Your task to perform on an android device: all mails in gmail Image 0: 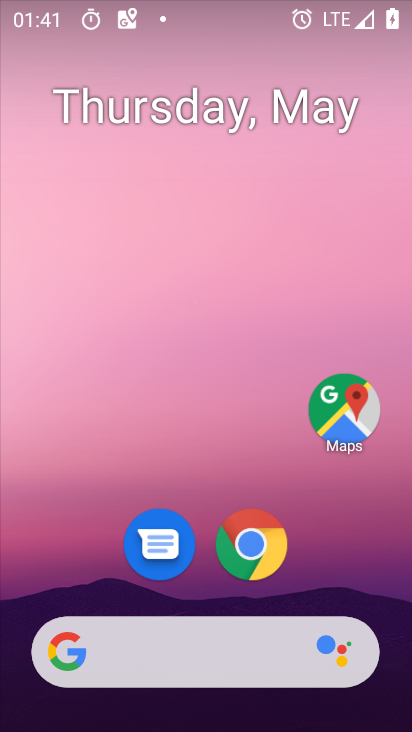
Step 0: drag from (358, 546) to (316, 138)
Your task to perform on an android device: all mails in gmail Image 1: 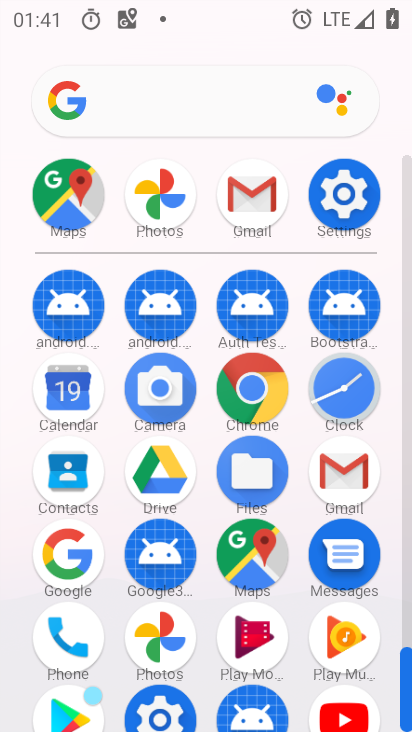
Step 1: click (356, 471)
Your task to perform on an android device: all mails in gmail Image 2: 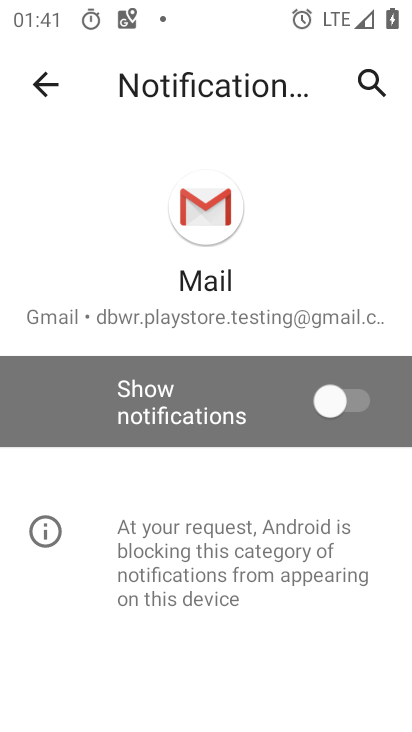
Step 2: click (59, 91)
Your task to perform on an android device: all mails in gmail Image 3: 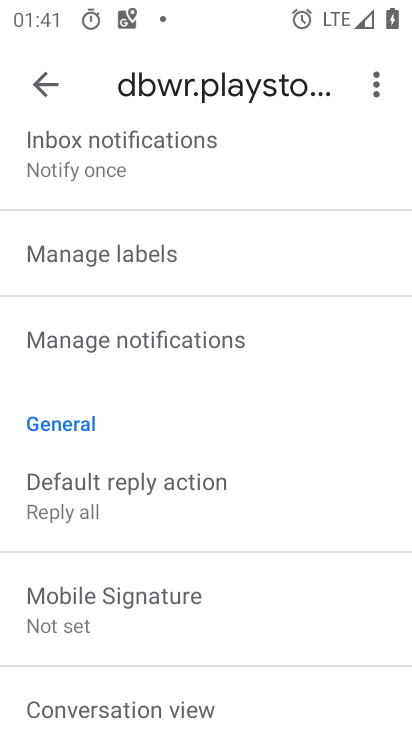
Step 3: click (52, 80)
Your task to perform on an android device: all mails in gmail Image 4: 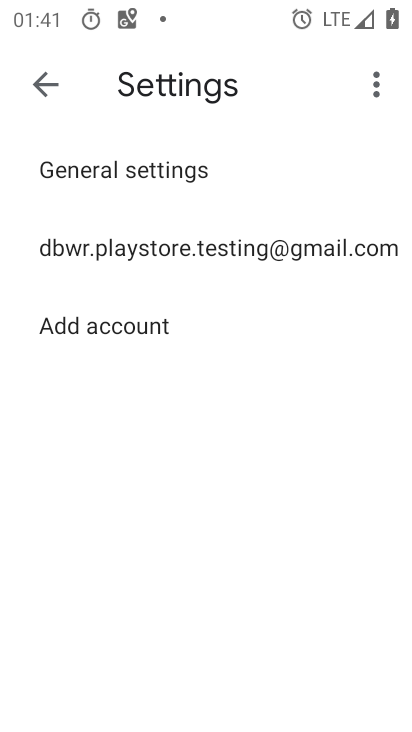
Step 4: click (47, 83)
Your task to perform on an android device: all mails in gmail Image 5: 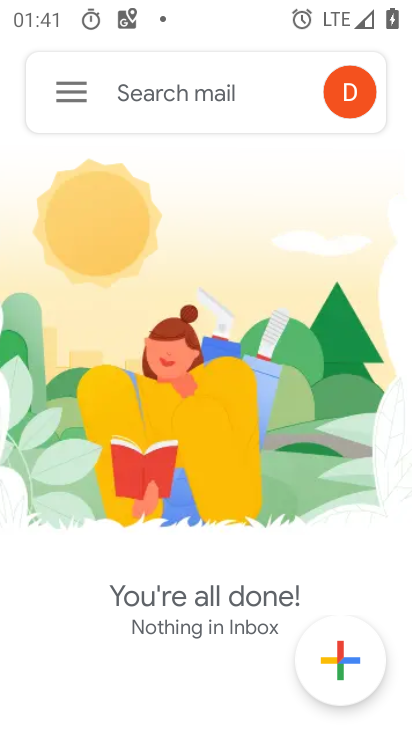
Step 5: click (77, 90)
Your task to perform on an android device: all mails in gmail Image 6: 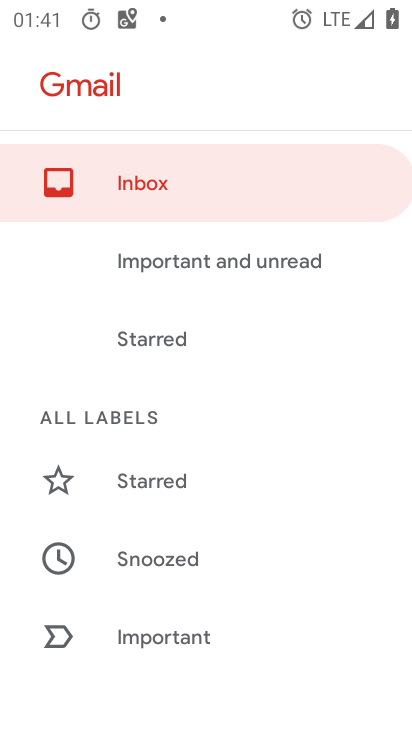
Step 6: drag from (270, 476) to (267, 353)
Your task to perform on an android device: all mails in gmail Image 7: 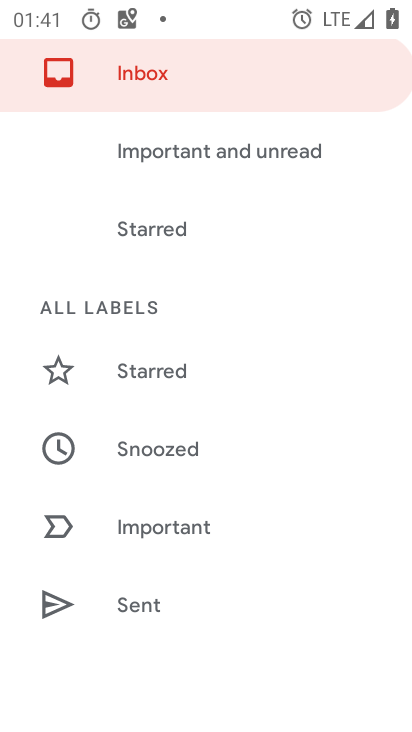
Step 7: drag from (278, 526) to (278, 358)
Your task to perform on an android device: all mails in gmail Image 8: 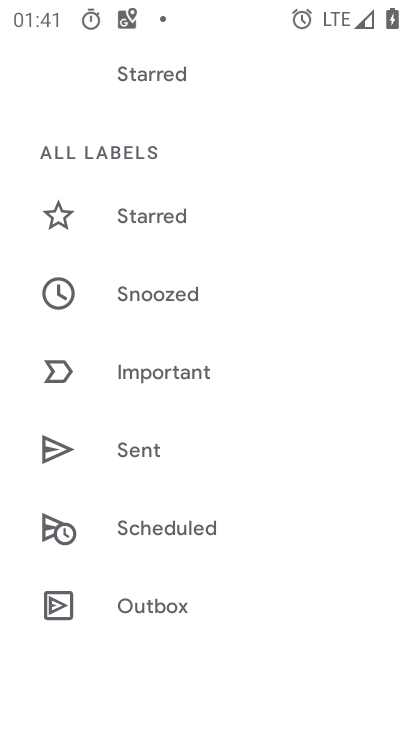
Step 8: drag from (284, 550) to (288, 421)
Your task to perform on an android device: all mails in gmail Image 9: 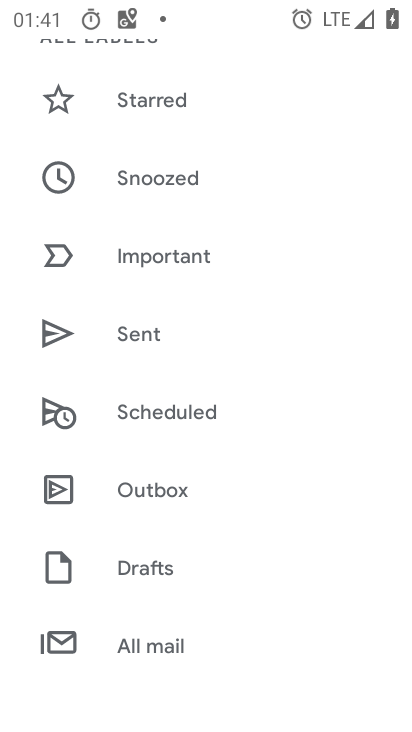
Step 9: drag from (302, 571) to (300, 447)
Your task to perform on an android device: all mails in gmail Image 10: 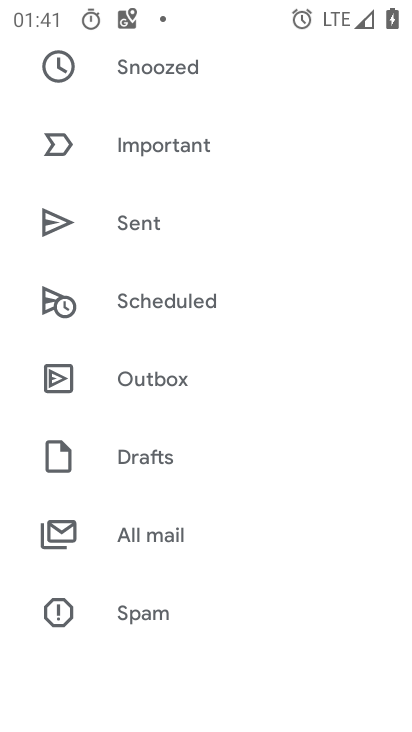
Step 10: drag from (283, 583) to (293, 449)
Your task to perform on an android device: all mails in gmail Image 11: 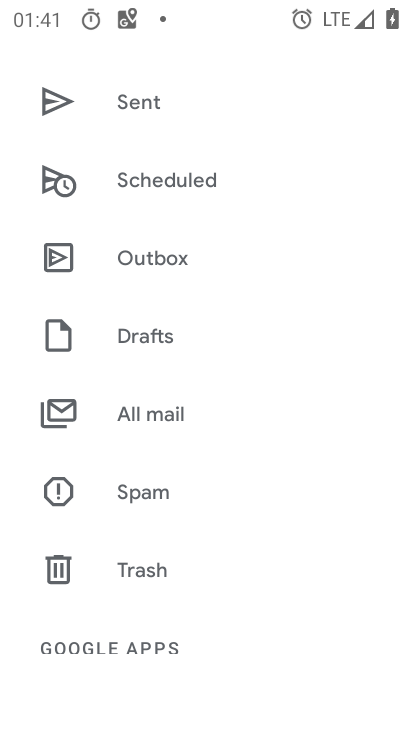
Step 11: drag from (313, 580) to (307, 424)
Your task to perform on an android device: all mails in gmail Image 12: 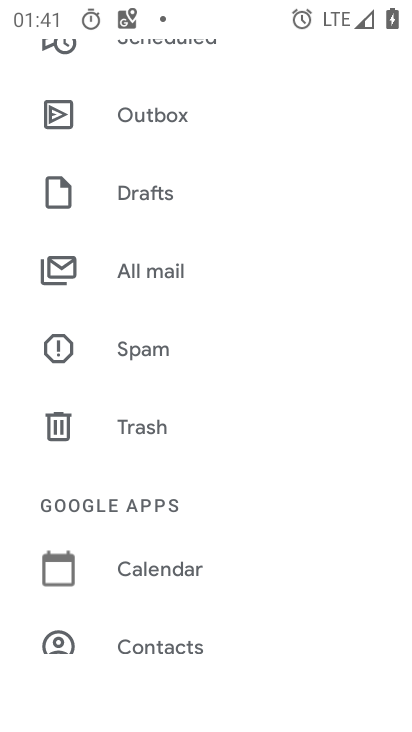
Step 12: drag from (296, 614) to (296, 429)
Your task to perform on an android device: all mails in gmail Image 13: 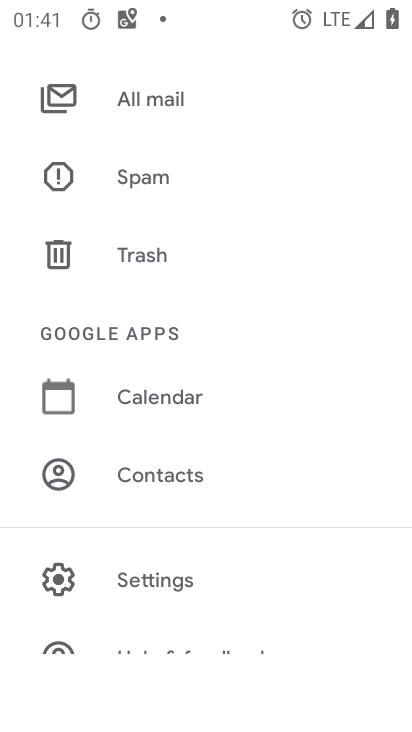
Step 13: drag from (303, 592) to (304, 447)
Your task to perform on an android device: all mails in gmail Image 14: 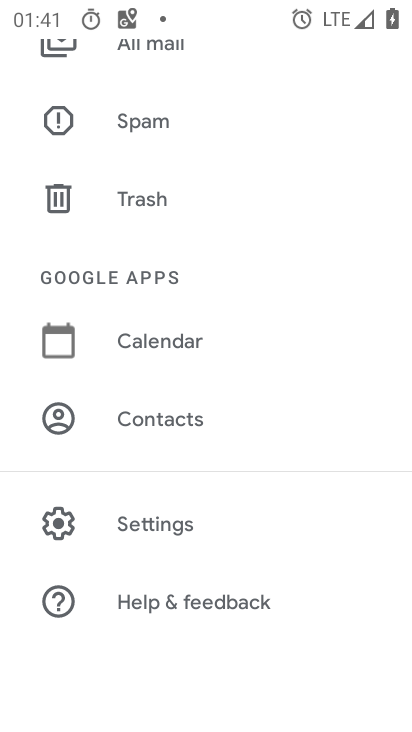
Step 14: drag from (303, 587) to (297, 471)
Your task to perform on an android device: all mails in gmail Image 15: 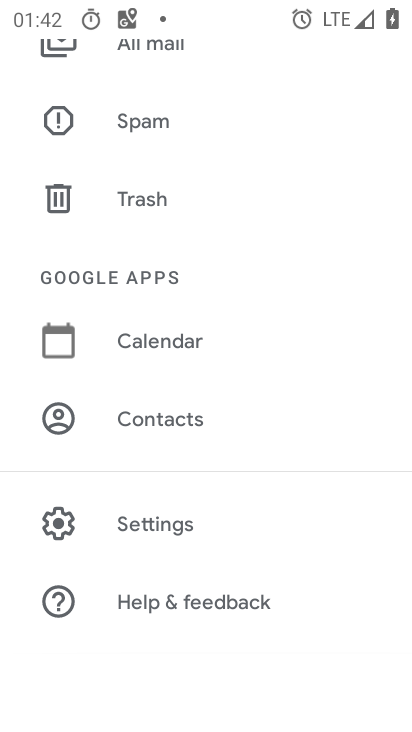
Step 15: drag from (286, 323) to (288, 447)
Your task to perform on an android device: all mails in gmail Image 16: 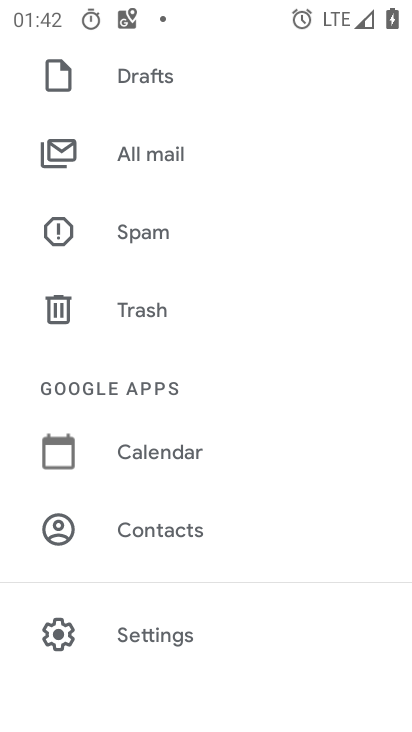
Step 16: drag from (285, 283) to (282, 396)
Your task to perform on an android device: all mails in gmail Image 17: 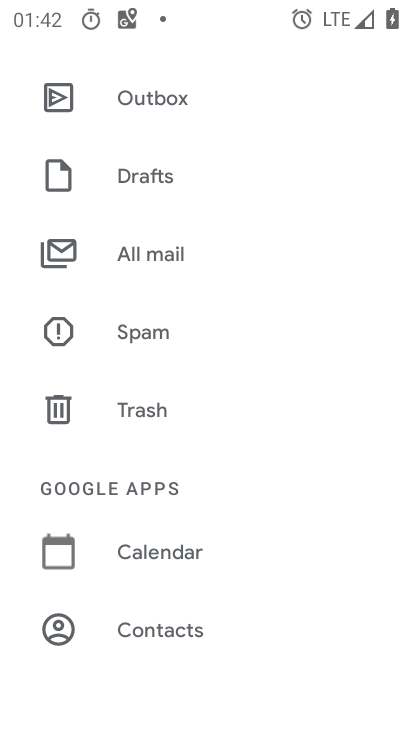
Step 17: drag from (283, 248) to (282, 373)
Your task to perform on an android device: all mails in gmail Image 18: 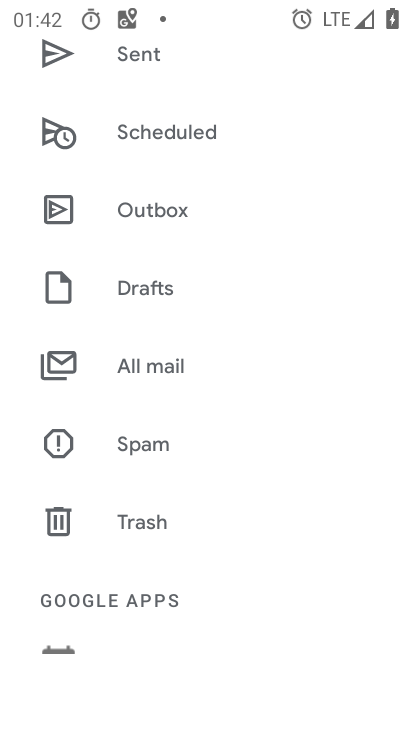
Step 18: click (187, 367)
Your task to perform on an android device: all mails in gmail Image 19: 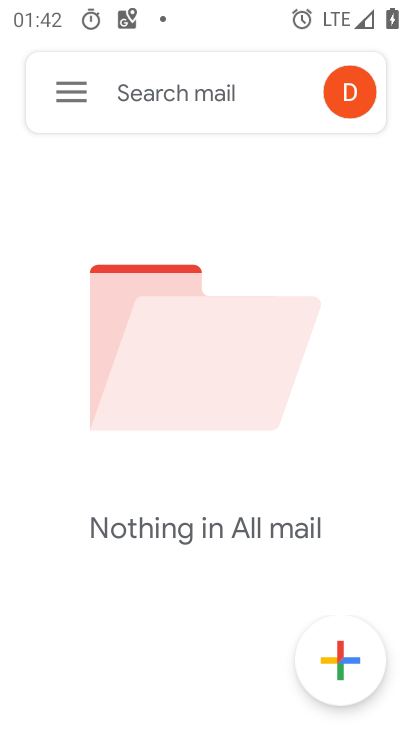
Step 19: task complete